Your task to perform on an android device: Open battery settings Image 0: 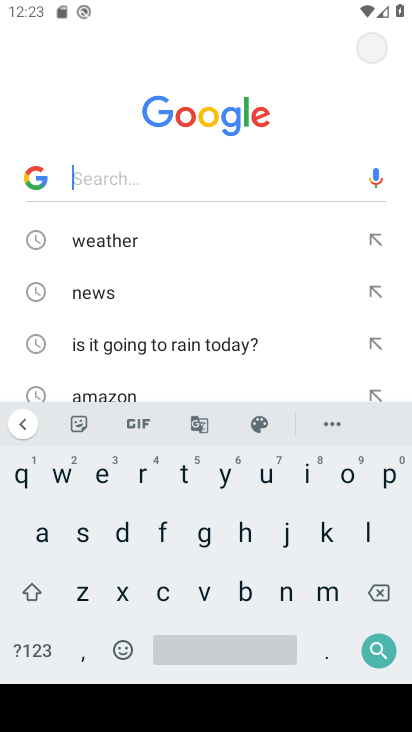
Step 0: press home button
Your task to perform on an android device: Open battery settings Image 1: 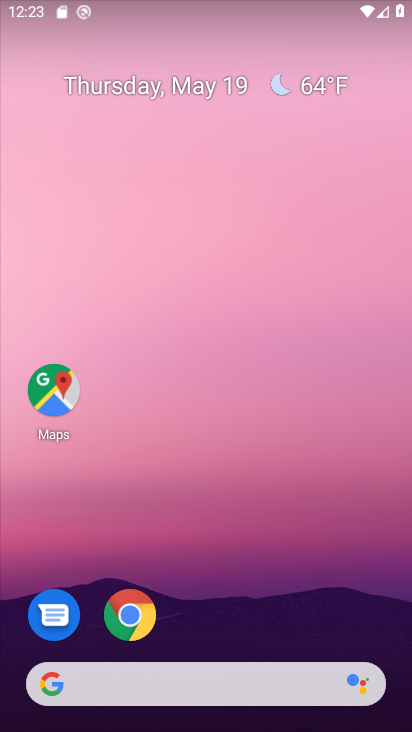
Step 1: drag from (257, 729) to (300, 298)
Your task to perform on an android device: Open battery settings Image 2: 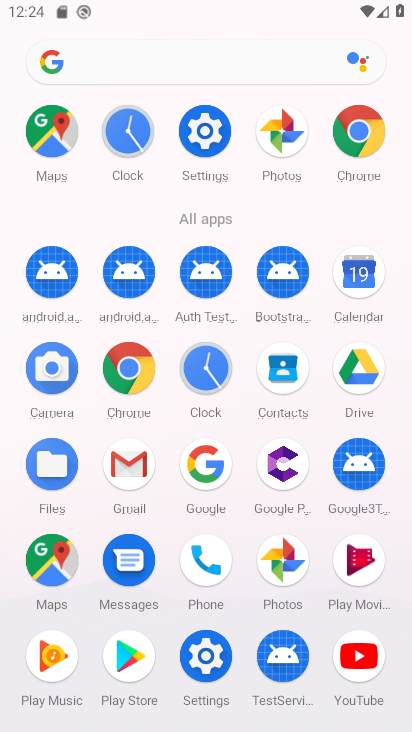
Step 2: click (216, 132)
Your task to perform on an android device: Open battery settings Image 3: 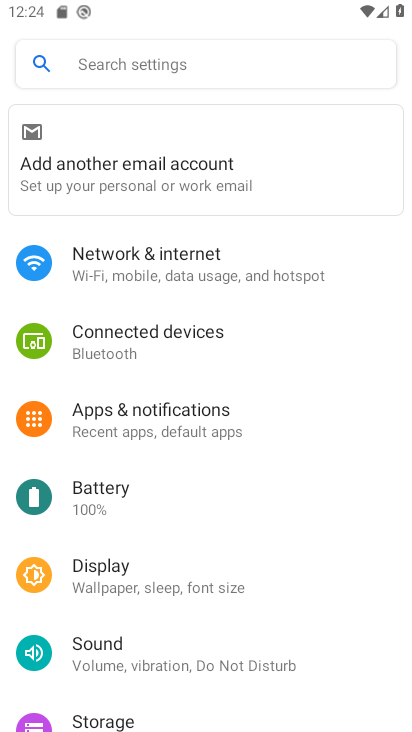
Step 3: click (118, 487)
Your task to perform on an android device: Open battery settings Image 4: 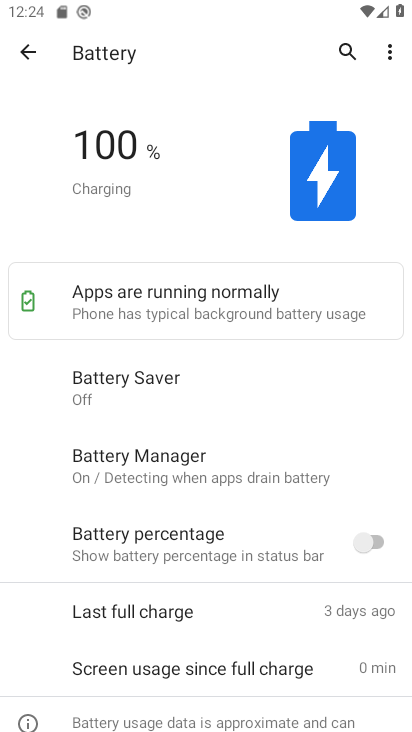
Step 4: task complete